Your task to perform on an android device: find photos in the google photos app Image 0: 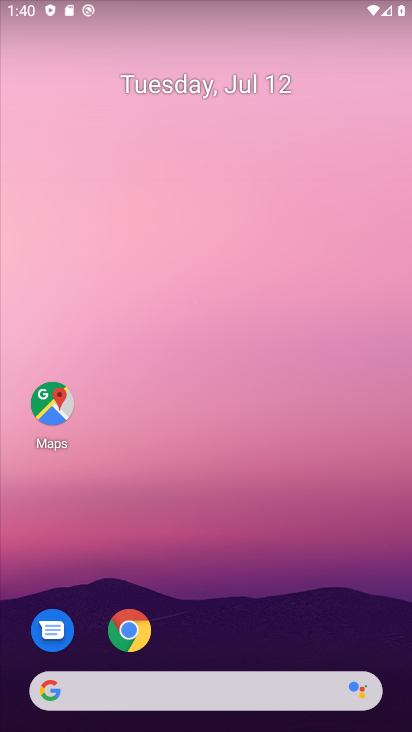
Step 0: drag from (389, 564) to (315, 138)
Your task to perform on an android device: find photos in the google photos app Image 1: 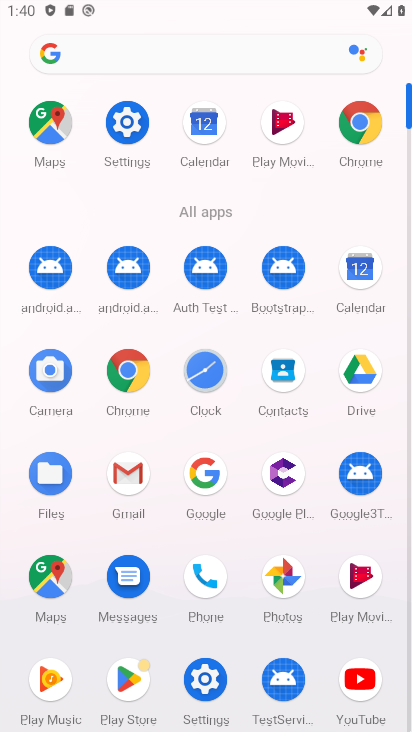
Step 1: click (294, 571)
Your task to perform on an android device: find photos in the google photos app Image 2: 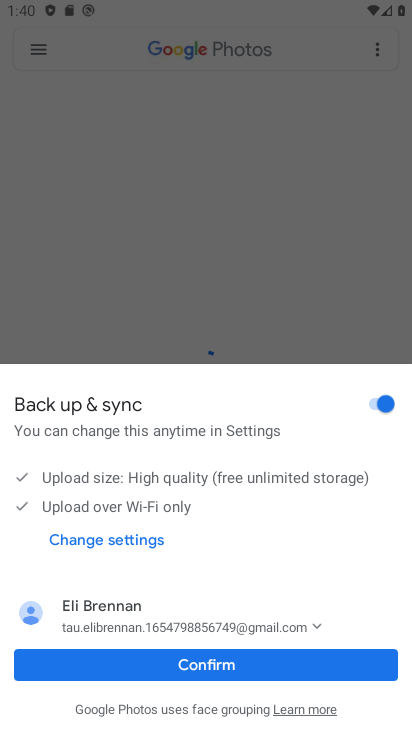
Step 2: click (248, 662)
Your task to perform on an android device: find photos in the google photos app Image 3: 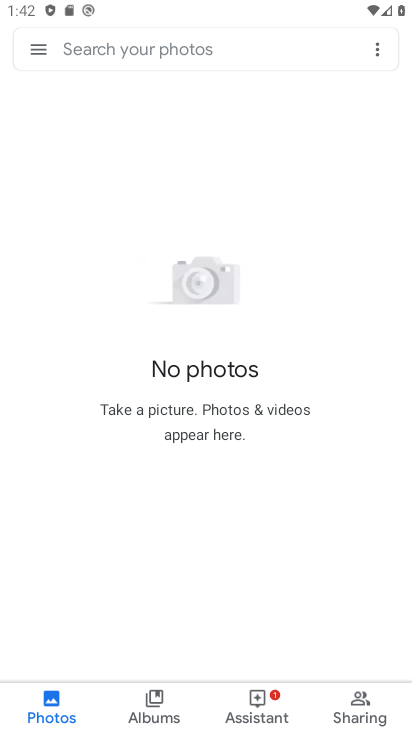
Step 3: task complete